Your task to perform on an android device: make emails show in primary in the gmail app Image 0: 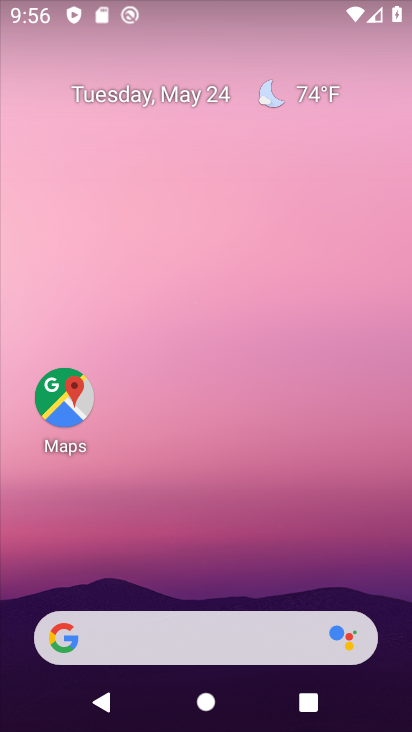
Step 0: drag from (158, 597) to (80, 106)
Your task to perform on an android device: make emails show in primary in the gmail app Image 1: 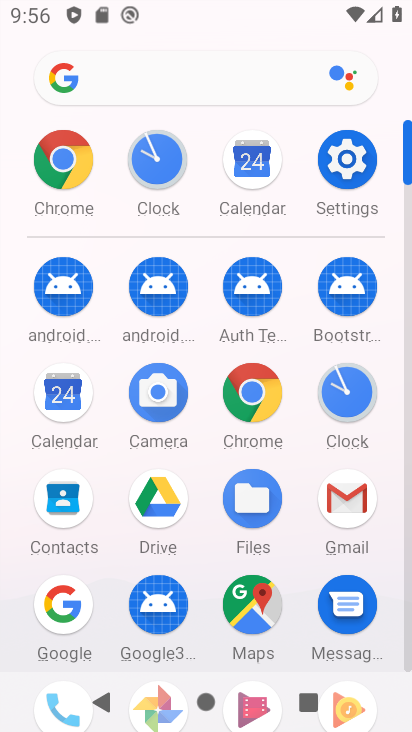
Step 1: click (346, 487)
Your task to perform on an android device: make emails show in primary in the gmail app Image 2: 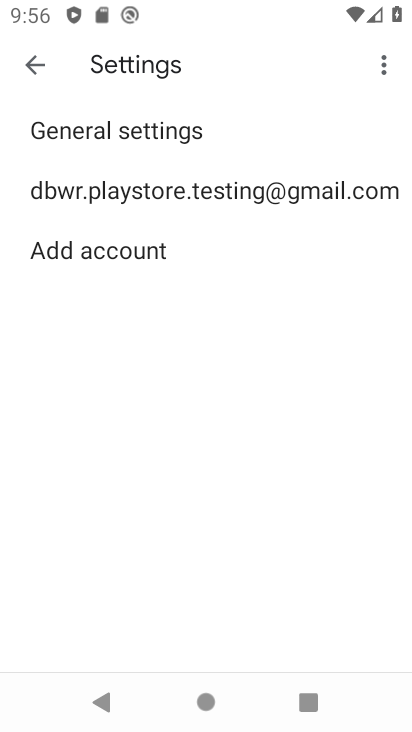
Step 2: click (83, 184)
Your task to perform on an android device: make emails show in primary in the gmail app Image 3: 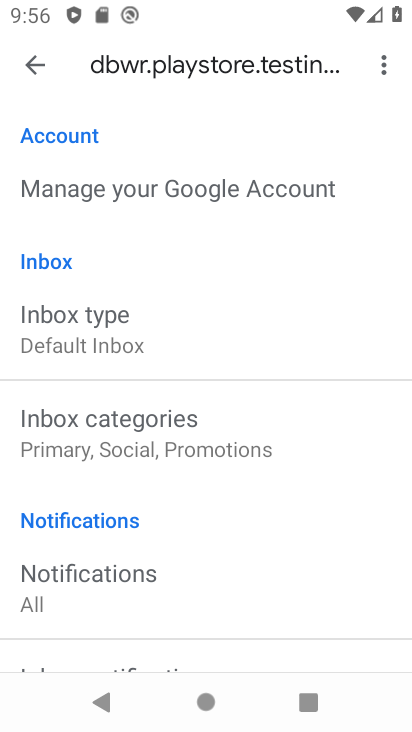
Step 3: click (24, 43)
Your task to perform on an android device: make emails show in primary in the gmail app Image 4: 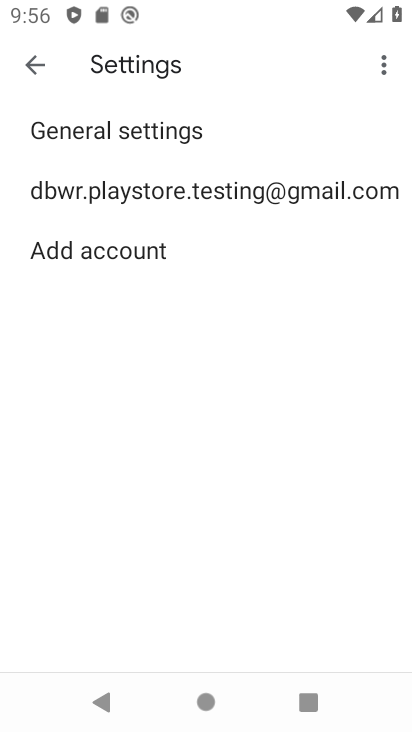
Step 4: click (24, 43)
Your task to perform on an android device: make emails show in primary in the gmail app Image 5: 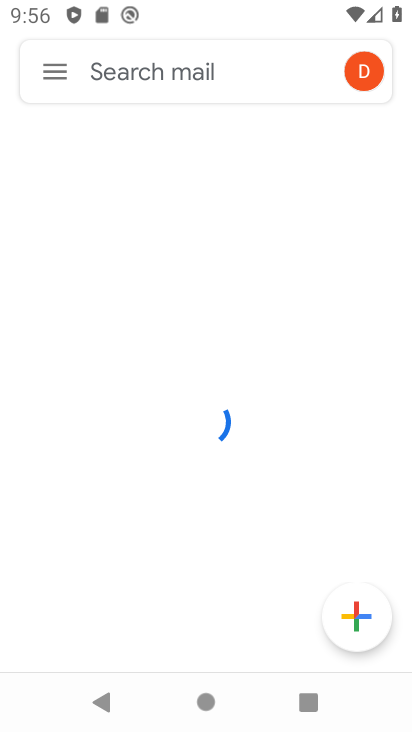
Step 5: click (46, 66)
Your task to perform on an android device: make emails show in primary in the gmail app Image 6: 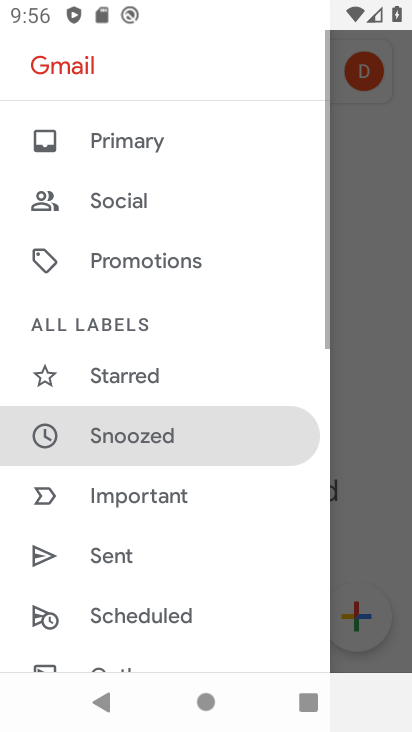
Step 6: click (98, 144)
Your task to perform on an android device: make emails show in primary in the gmail app Image 7: 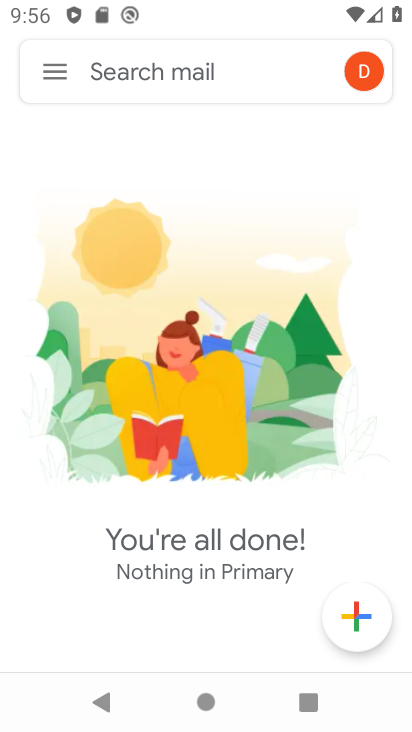
Step 7: task complete